Your task to perform on an android device: Go to battery settings Image 0: 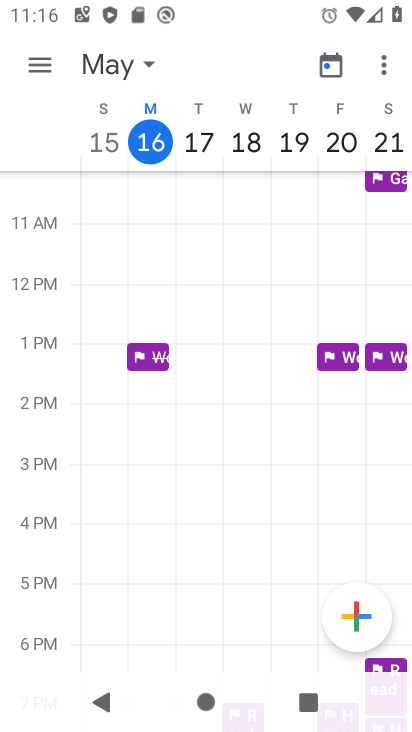
Step 0: press home button
Your task to perform on an android device: Go to battery settings Image 1: 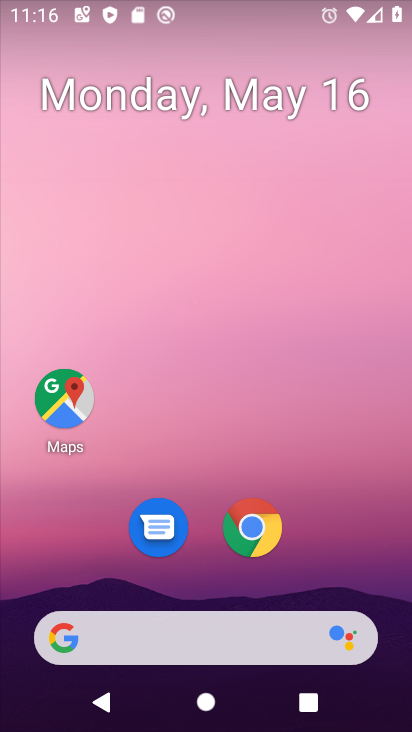
Step 1: drag from (340, 596) to (270, 6)
Your task to perform on an android device: Go to battery settings Image 2: 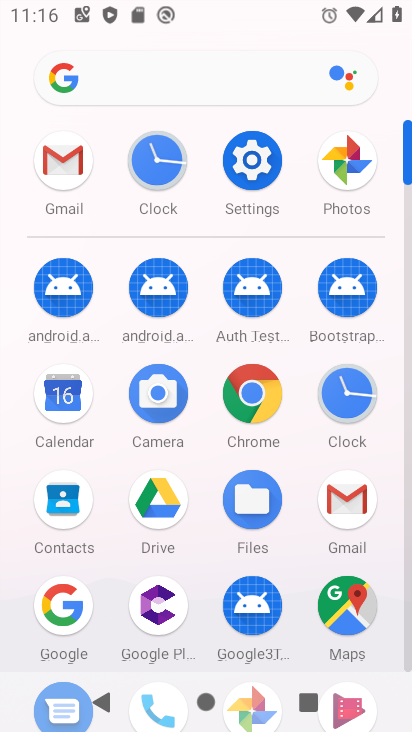
Step 2: click (253, 165)
Your task to perform on an android device: Go to battery settings Image 3: 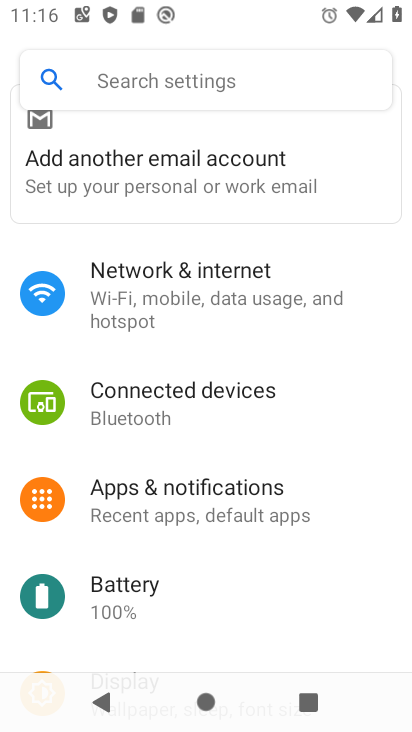
Step 3: click (106, 603)
Your task to perform on an android device: Go to battery settings Image 4: 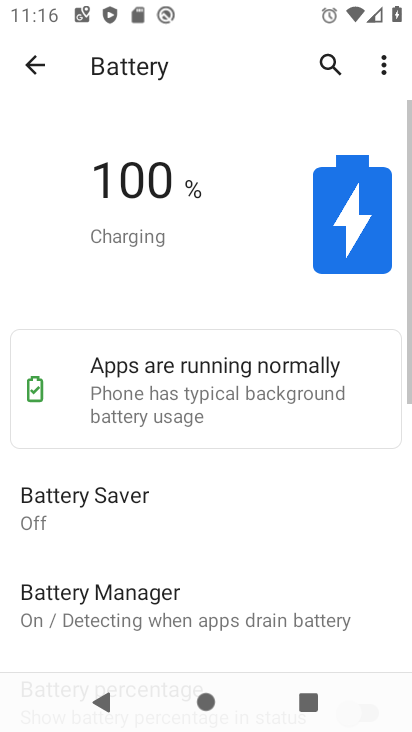
Step 4: task complete